Your task to perform on an android device: Go to sound settings Image 0: 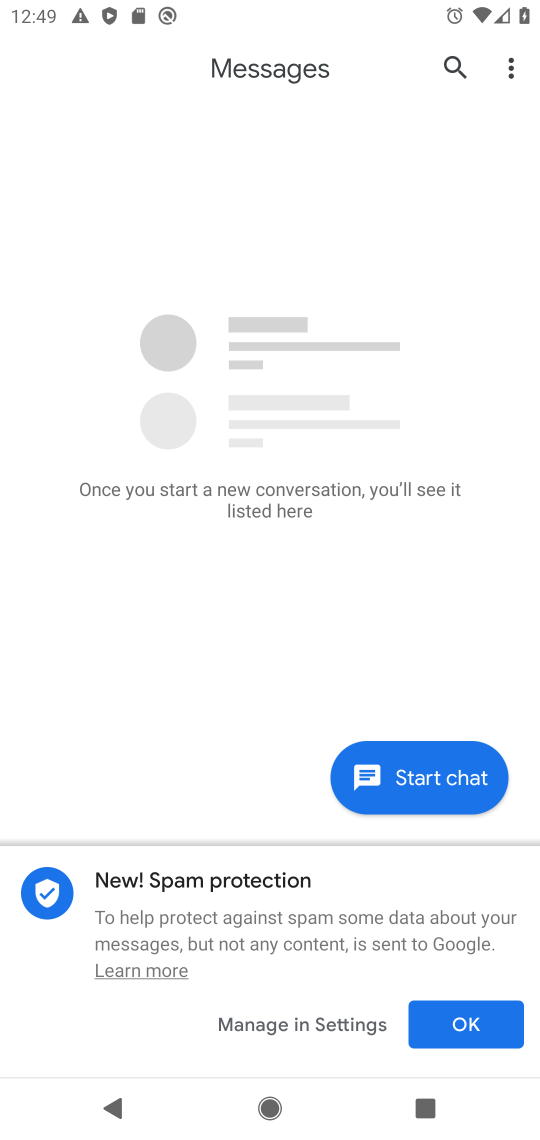
Step 0: press home button
Your task to perform on an android device: Go to sound settings Image 1: 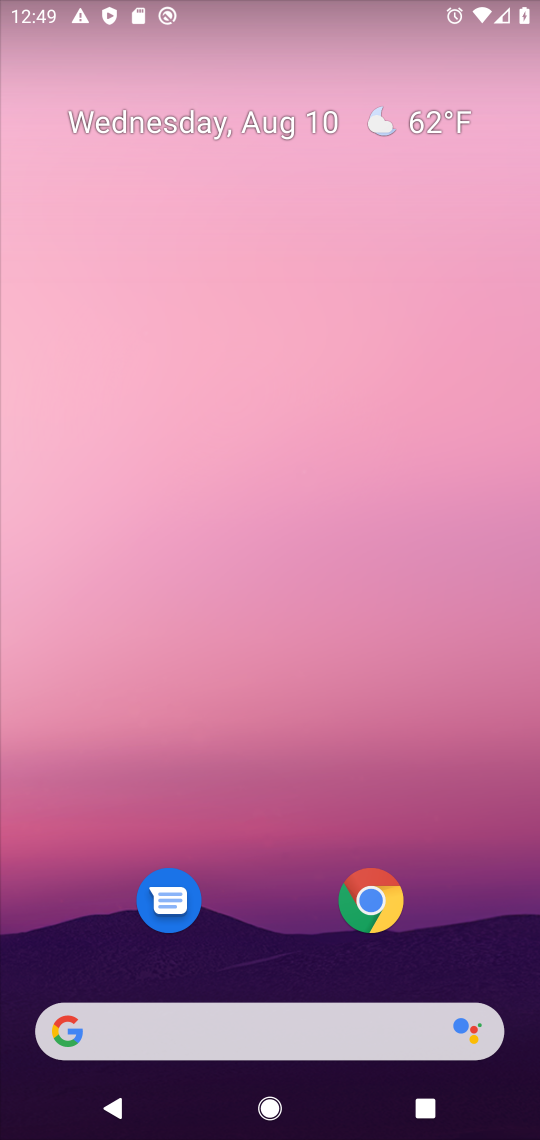
Step 1: drag from (269, 889) to (320, 0)
Your task to perform on an android device: Go to sound settings Image 2: 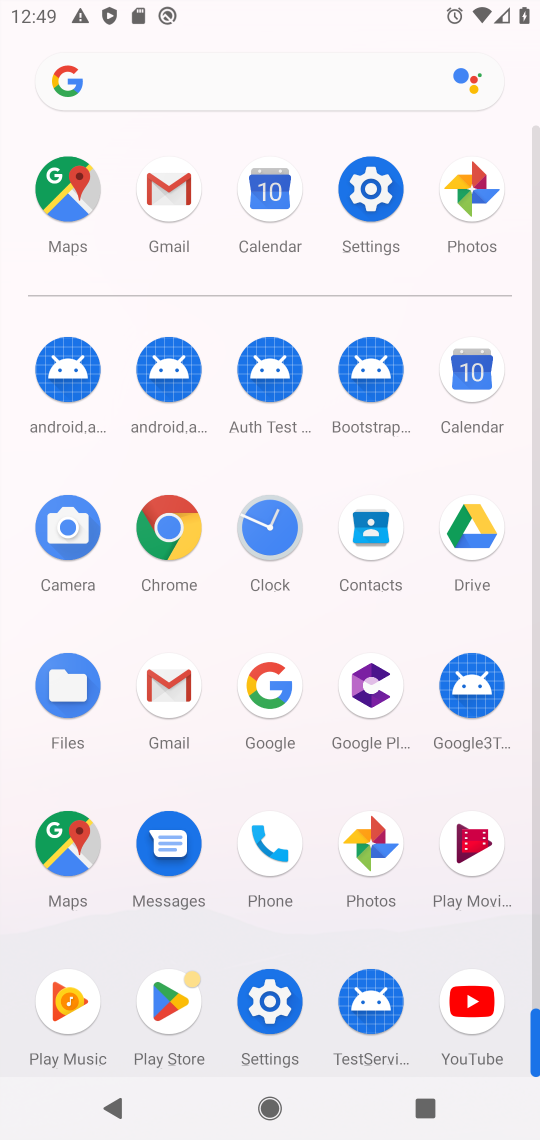
Step 2: click (373, 191)
Your task to perform on an android device: Go to sound settings Image 3: 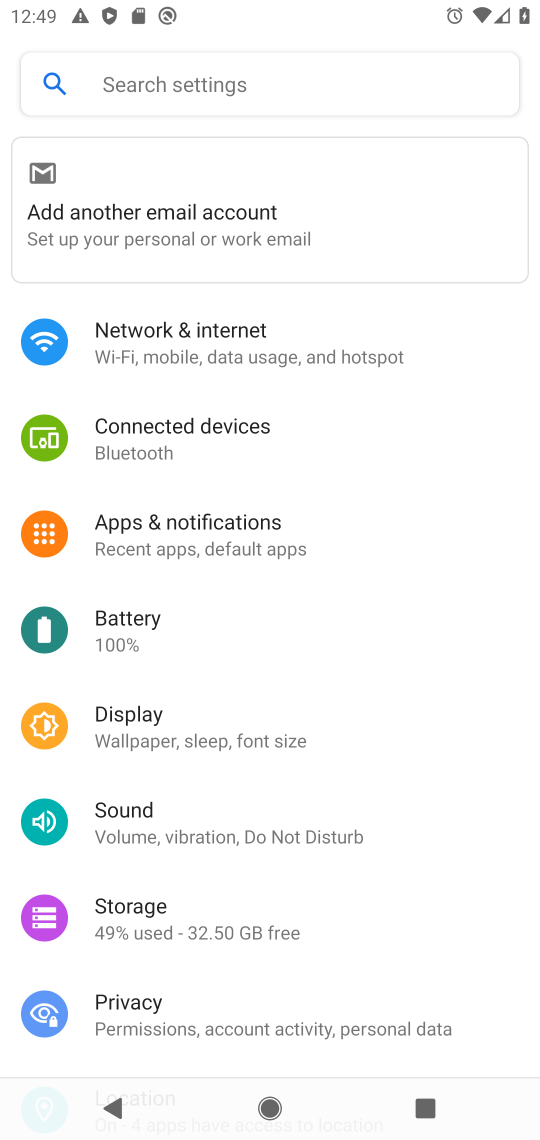
Step 3: click (215, 820)
Your task to perform on an android device: Go to sound settings Image 4: 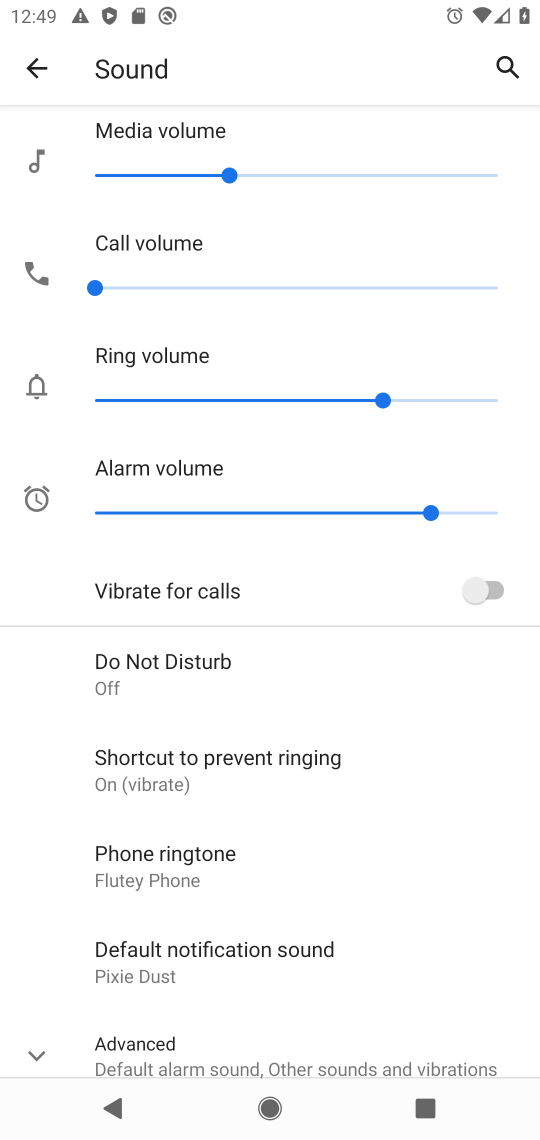
Step 4: task complete